Your task to perform on an android device: open app "AliExpress" (install if not already installed), go to login, and select forgot password Image 0: 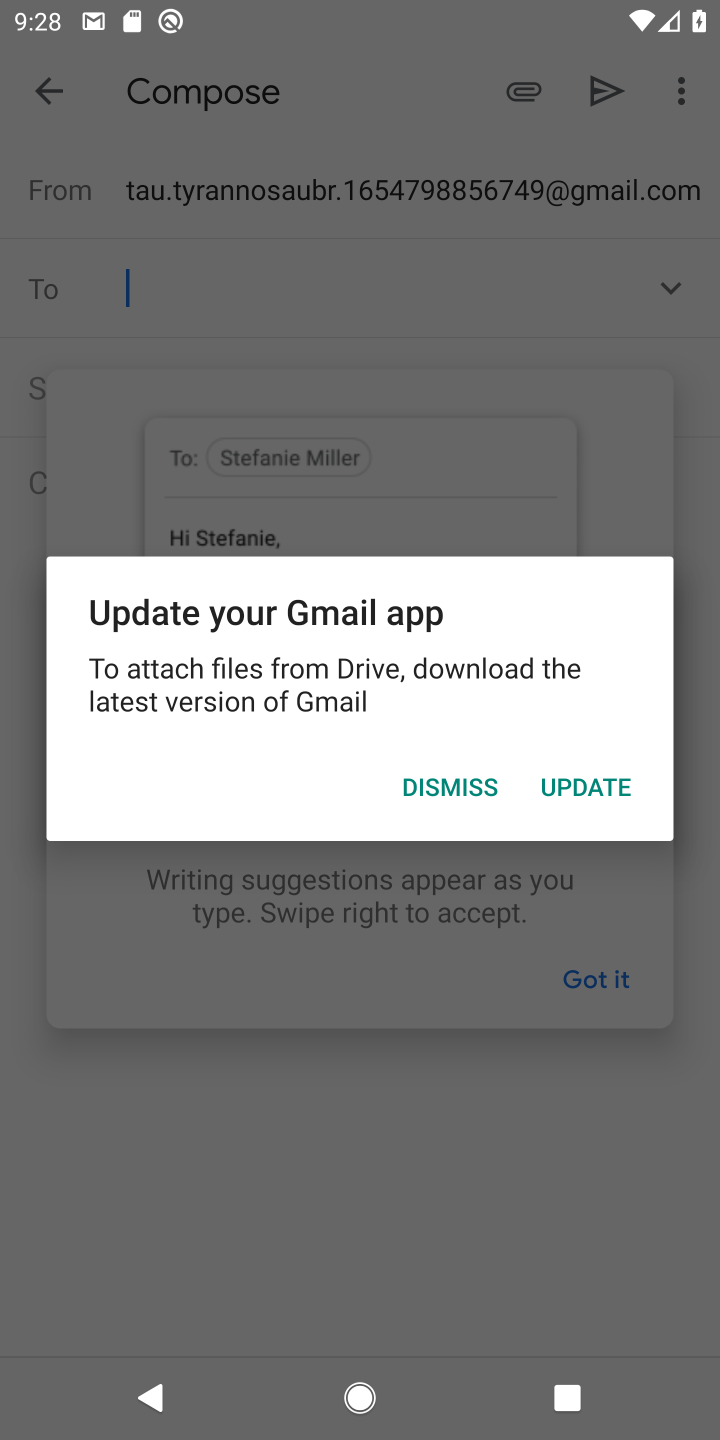
Step 0: press home button
Your task to perform on an android device: open app "AliExpress" (install if not already installed), go to login, and select forgot password Image 1: 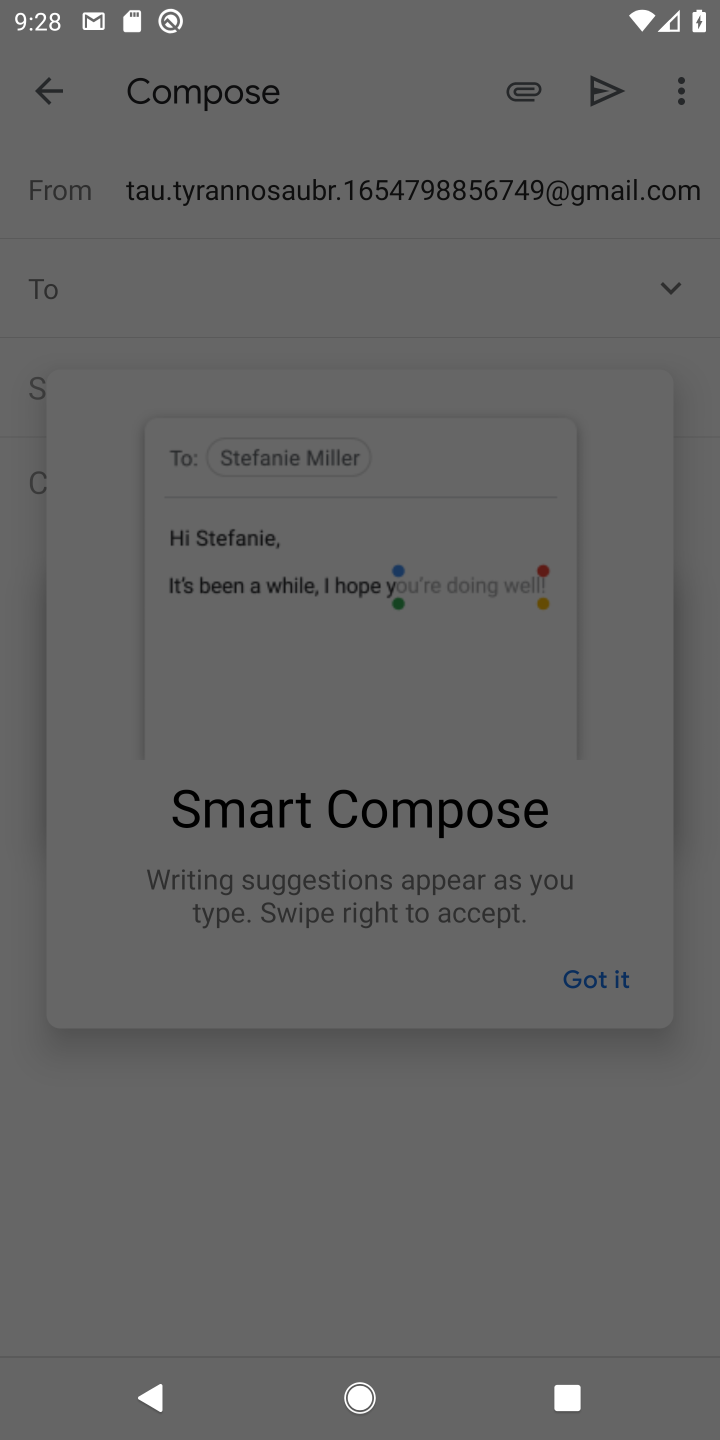
Step 1: press home button
Your task to perform on an android device: open app "AliExpress" (install if not already installed), go to login, and select forgot password Image 2: 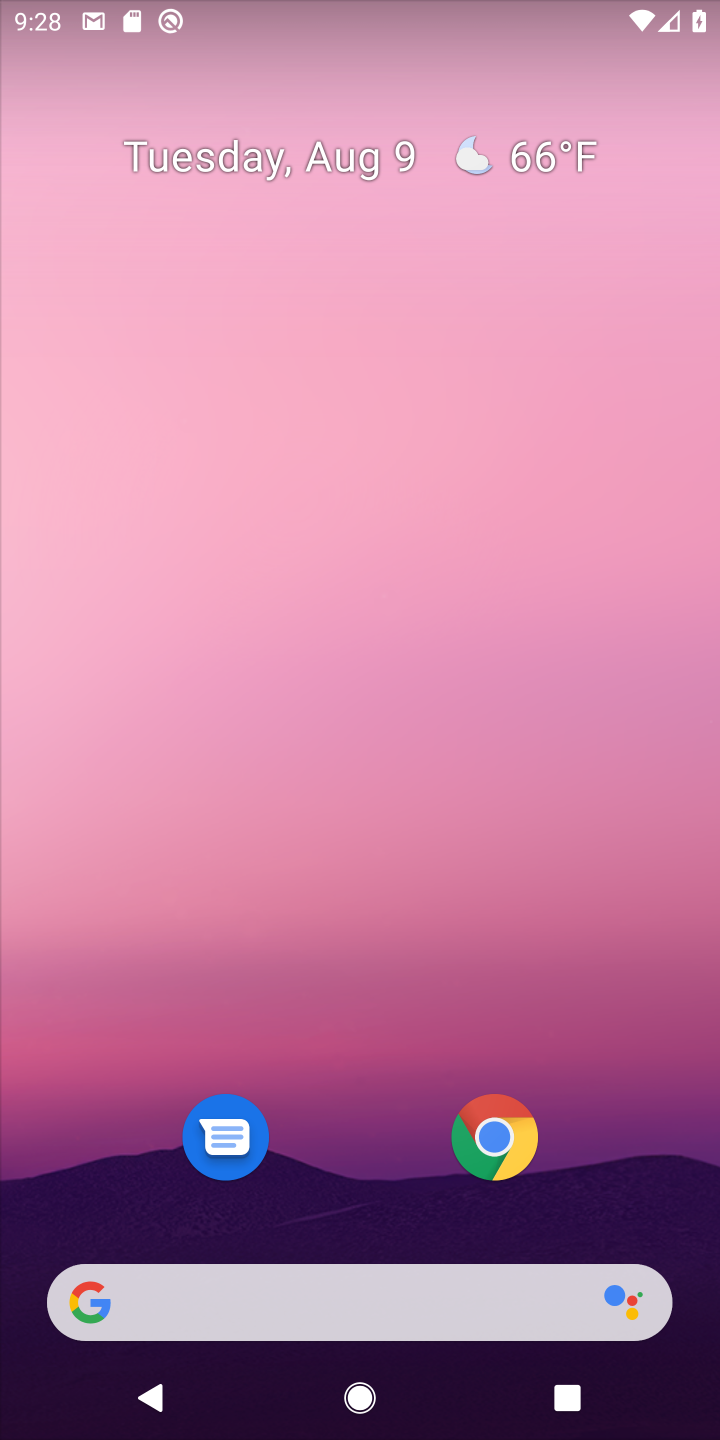
Step 2: drag from (351, 812) to (364, 153)
Your task to perform on an android device: open app "AliExpress" (install if not already installed), go to login, and select forgot password Image 3: 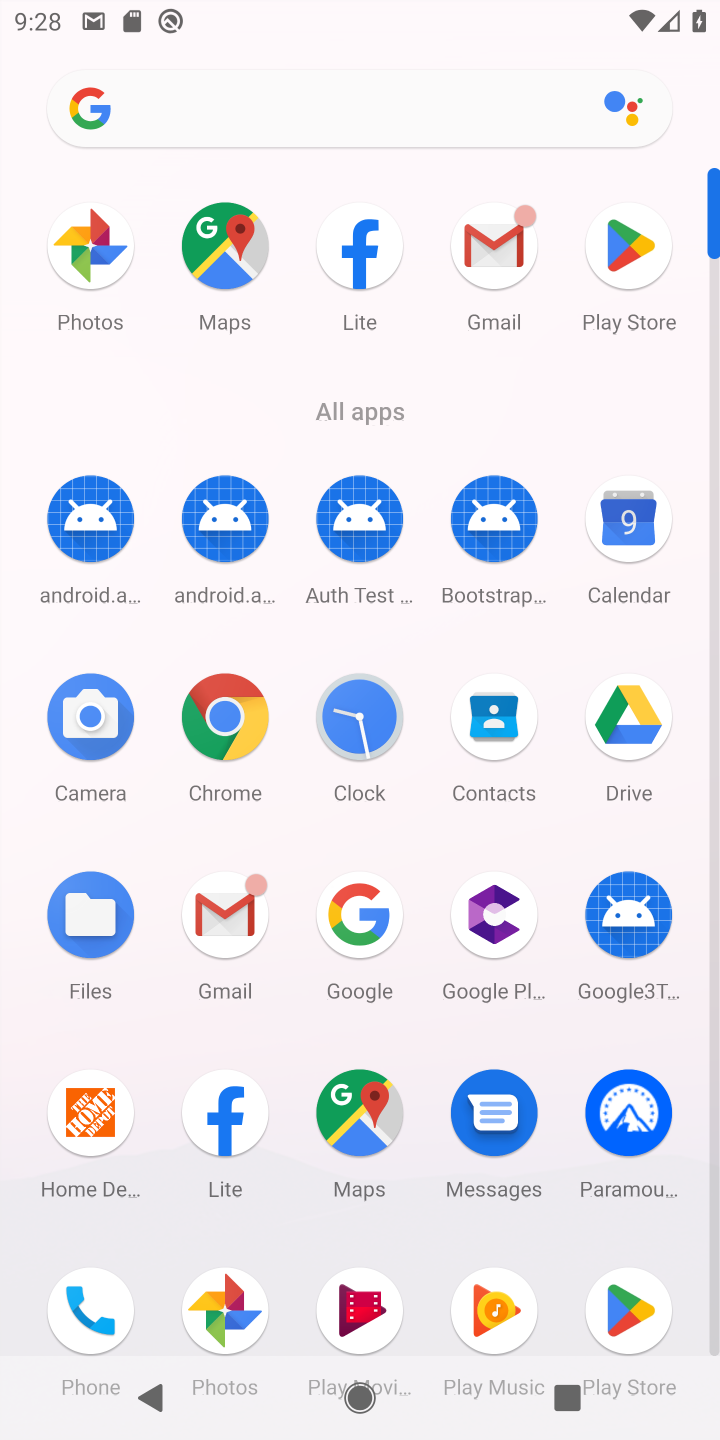
Step 3: click (614, 253)
Your task to perform on an android device: open app "AliExpress" (install if not already installed), go to login, and select forgot password Image 4: 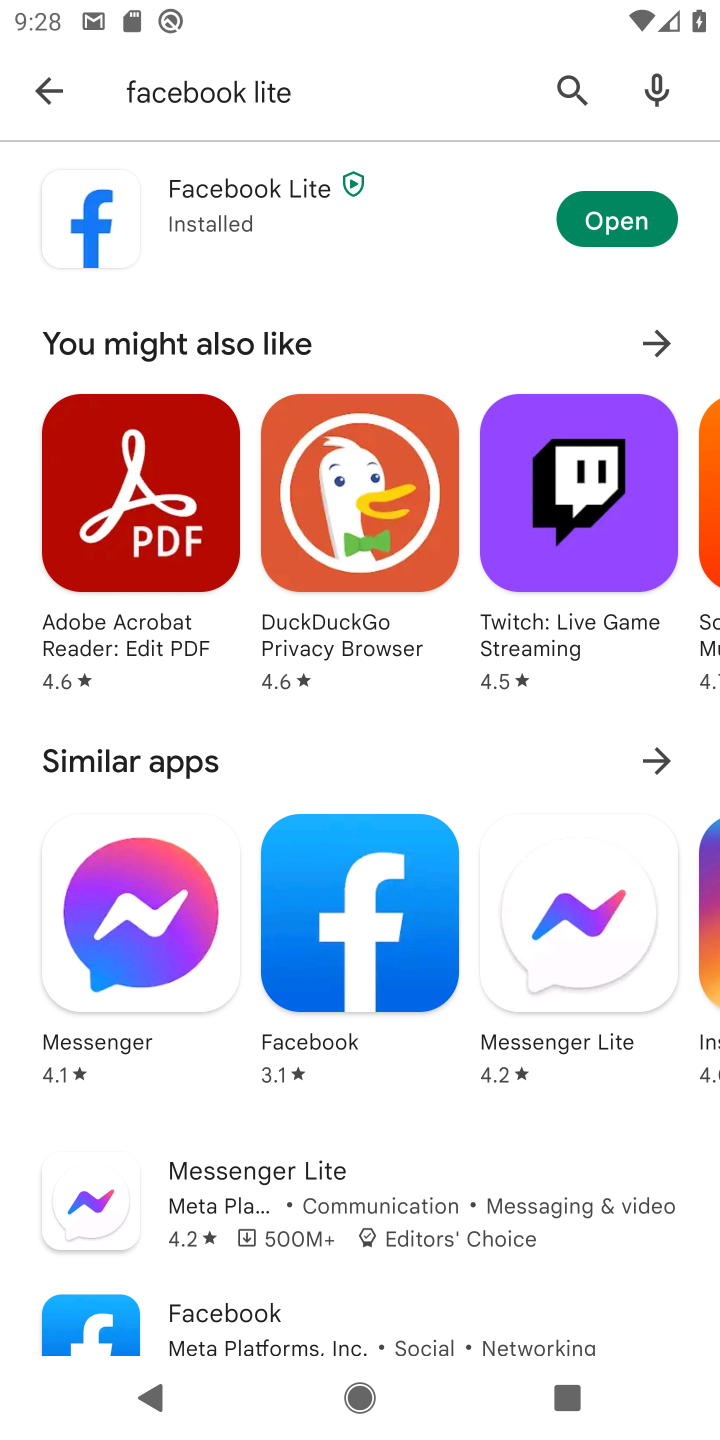
Step 4: click (562, 95)
Your task to perform on an android device: open app "AliExpress" (install if not already installed), go to login, and select forgot password Image 5: 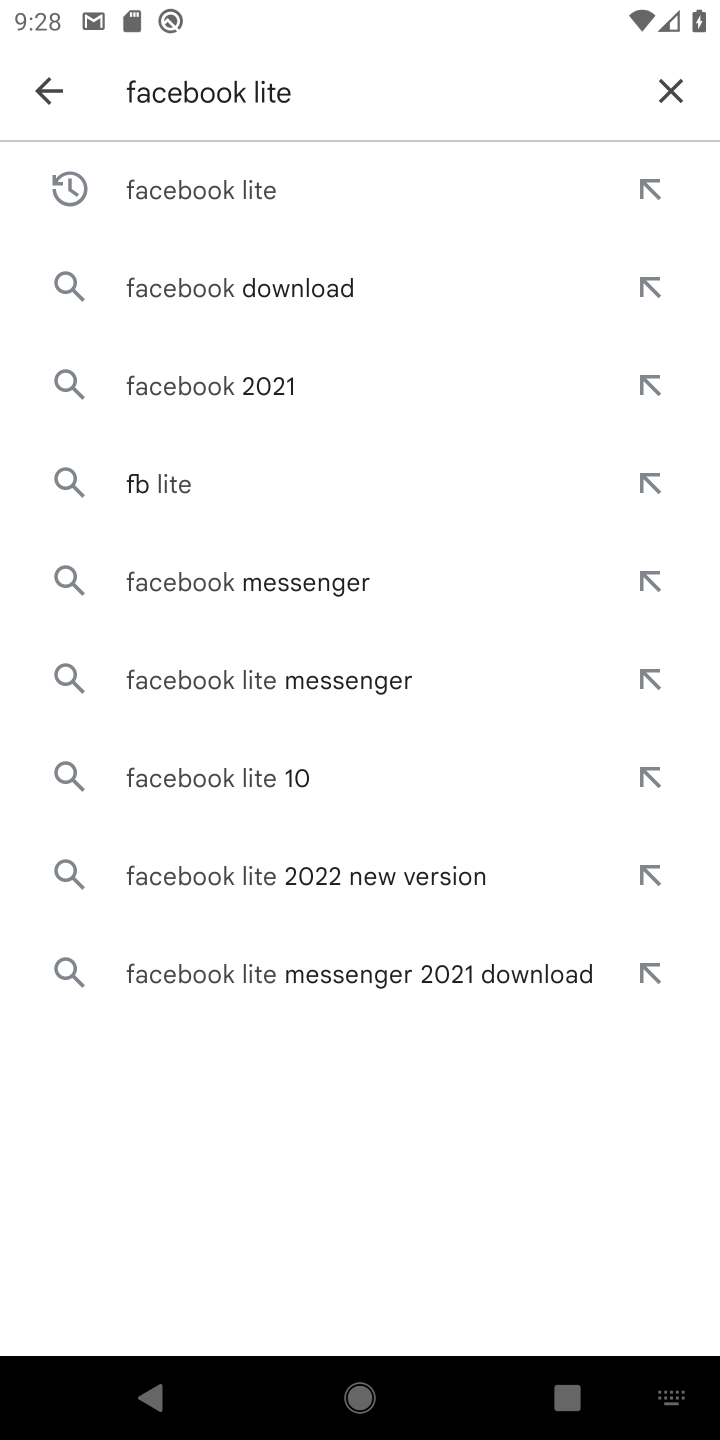
Step 5: click (668, 82)
Your task to perform on an android device: open app "AliExpress" (install if not already installed), go to login, and select forgot password Image 6: 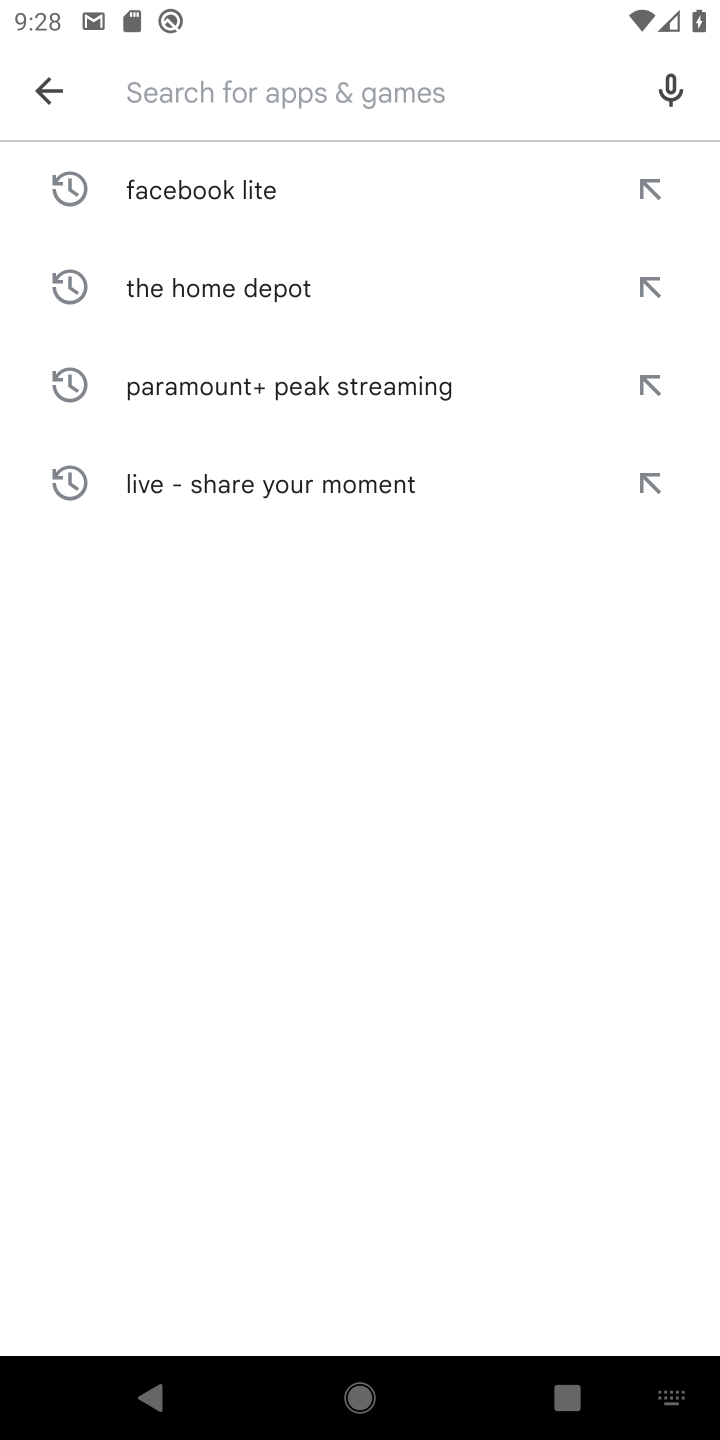
Step 6: type "AliExpress"
Your task to perform on an android device: open app "AliExpress" (install if not already installed), go to login, and select forgot password Image 7: 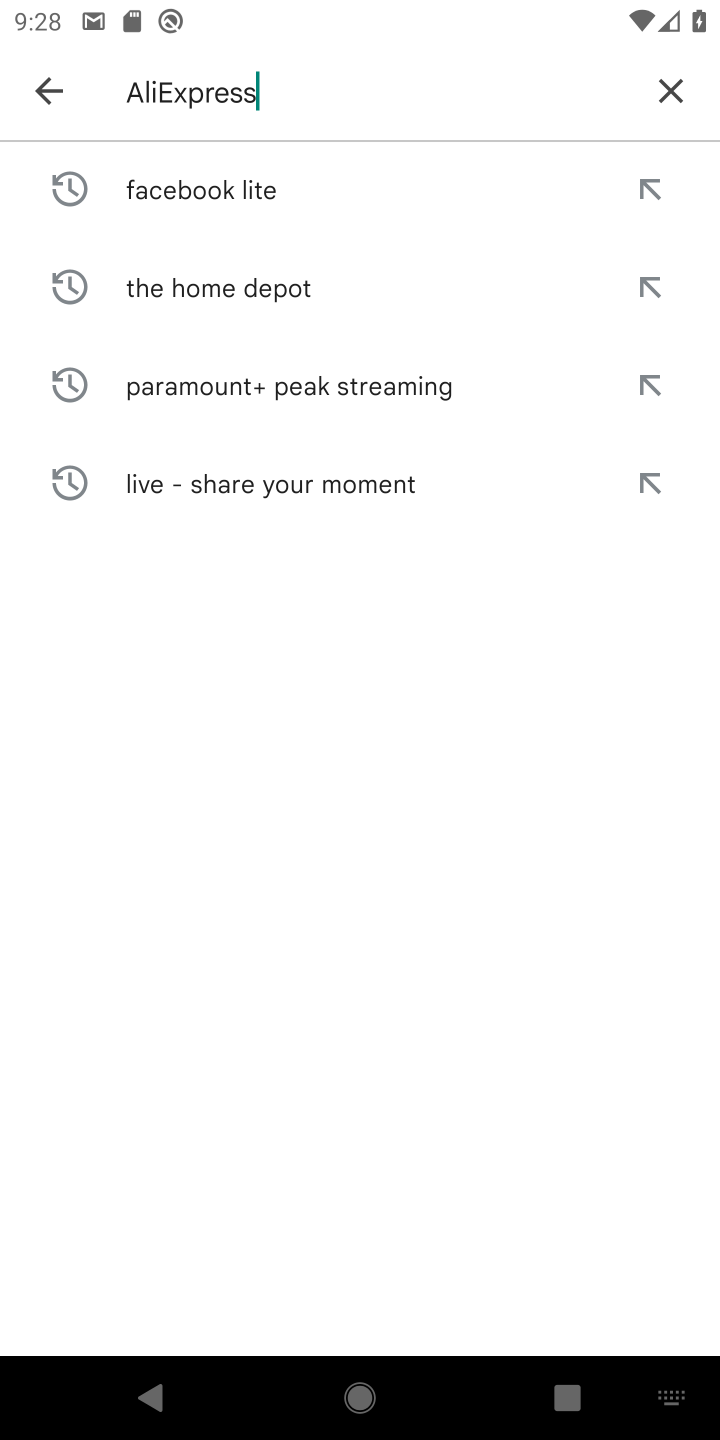
Step 7: type ""
Your task to perform on an android device: open app "AliExpress" (install if not already installed), go to login, and select forgot password Image 8: 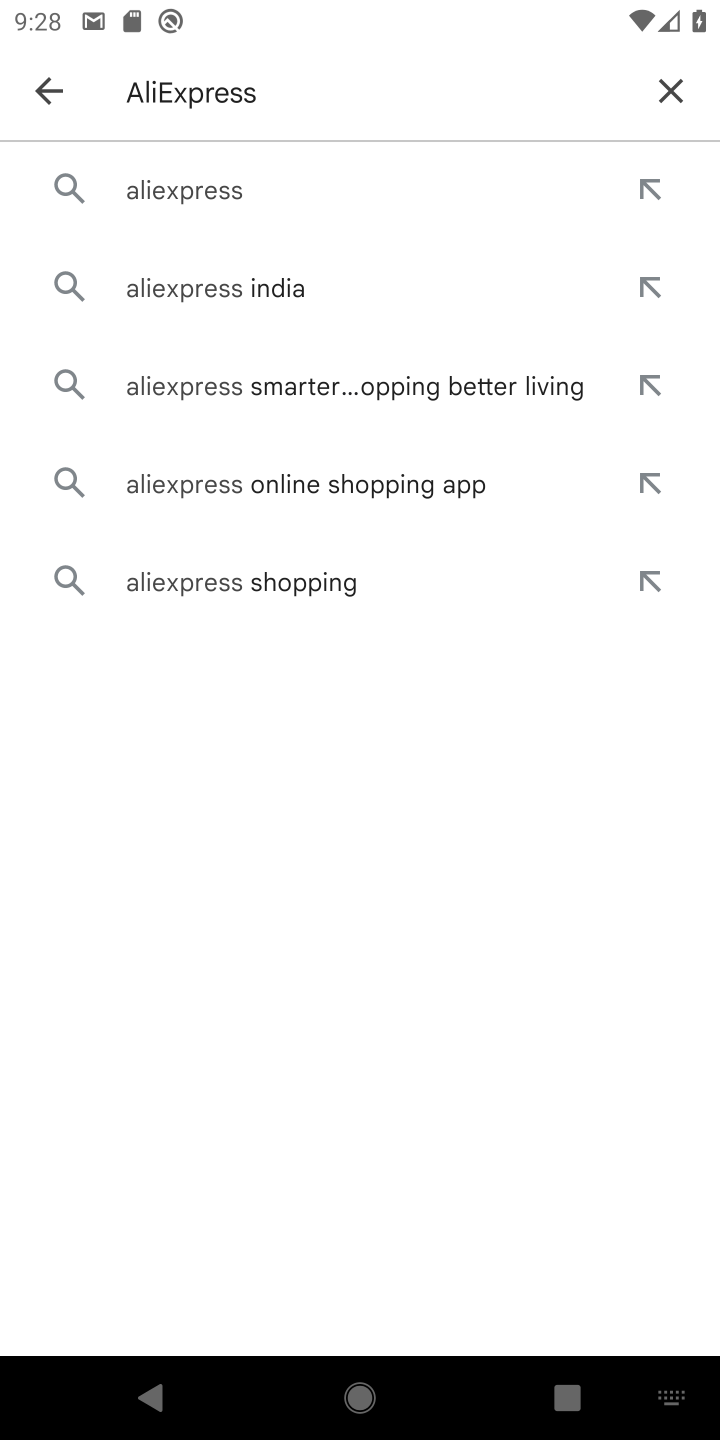
Step 8: click (239, 170)
Your task to perform on an android device: open app "AliExpress" (install if not already installed), go to login, and select forgot password Image 9: 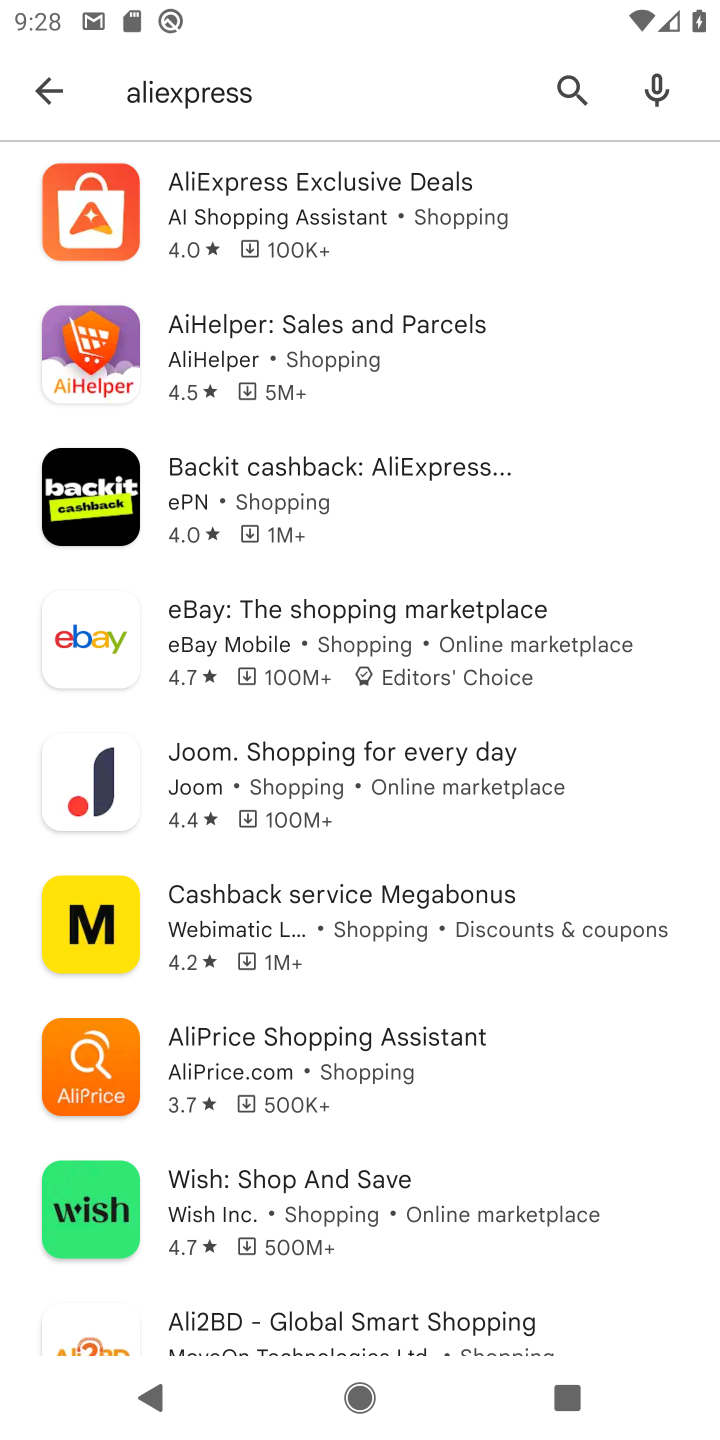
Step 9: click (252, 181)
Your task to perform on an android device: open app "AliExpress" (install if not already installed), go to login, and select forgot password Image 10: 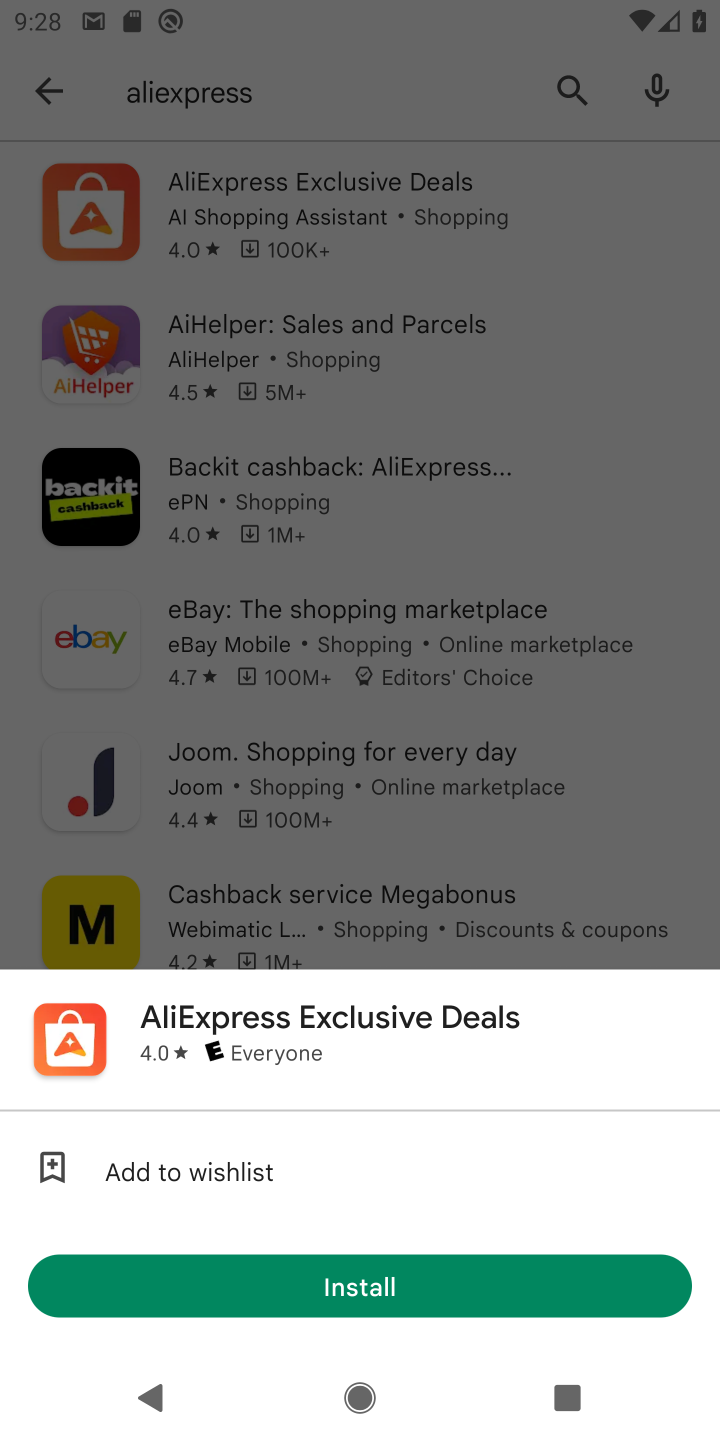
Step 10: click (311, 1278)
Your task to perform on an android device: open app "AliExpress" (install if not already installed), go to login, and select forgot password Image 11: 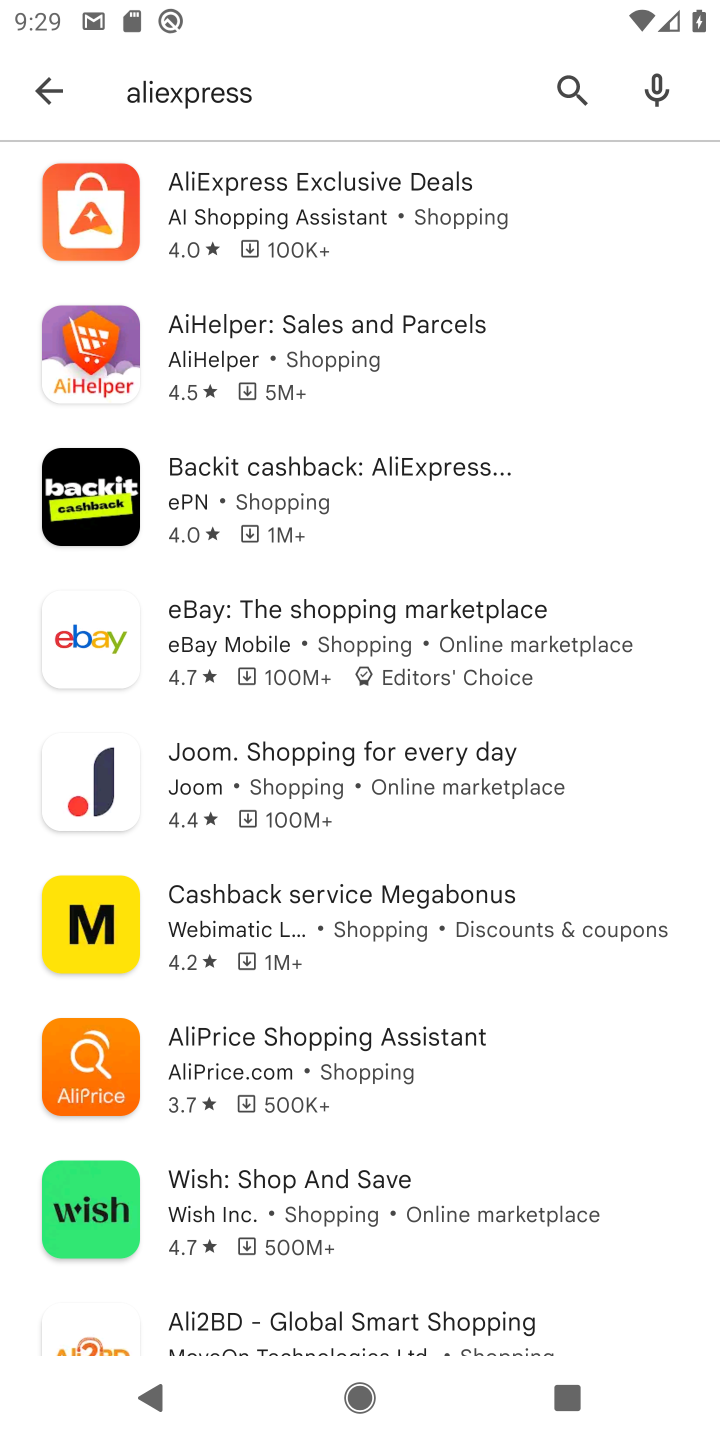
Step 11: click (277, 206)
Your task to perform on an android device: open app "AliExpress" (install if not already installed), go to login, and select forgot password Image 12: 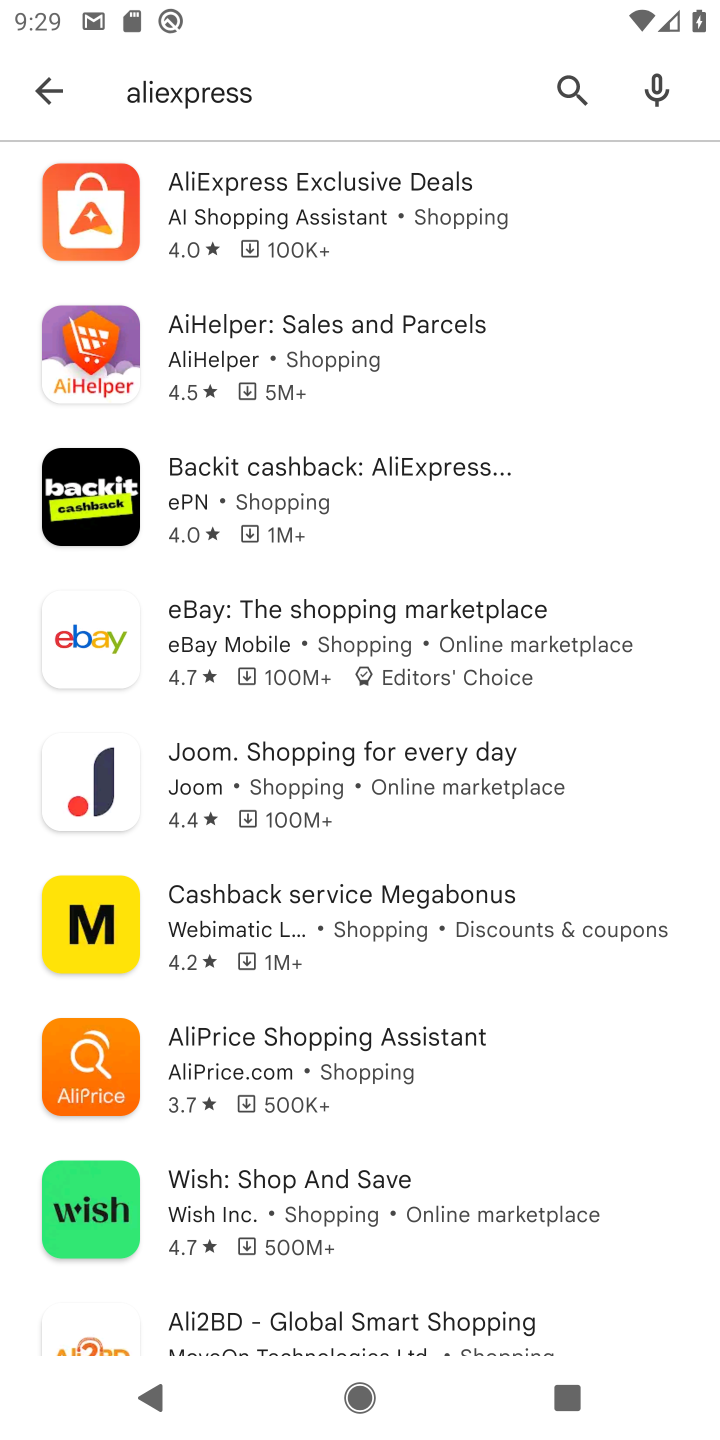
Step 12: click (293, 182)
Your task to perform on an android device: open app "AliExpress" (install if not already installed), go to login, and select forgot password Image 13: 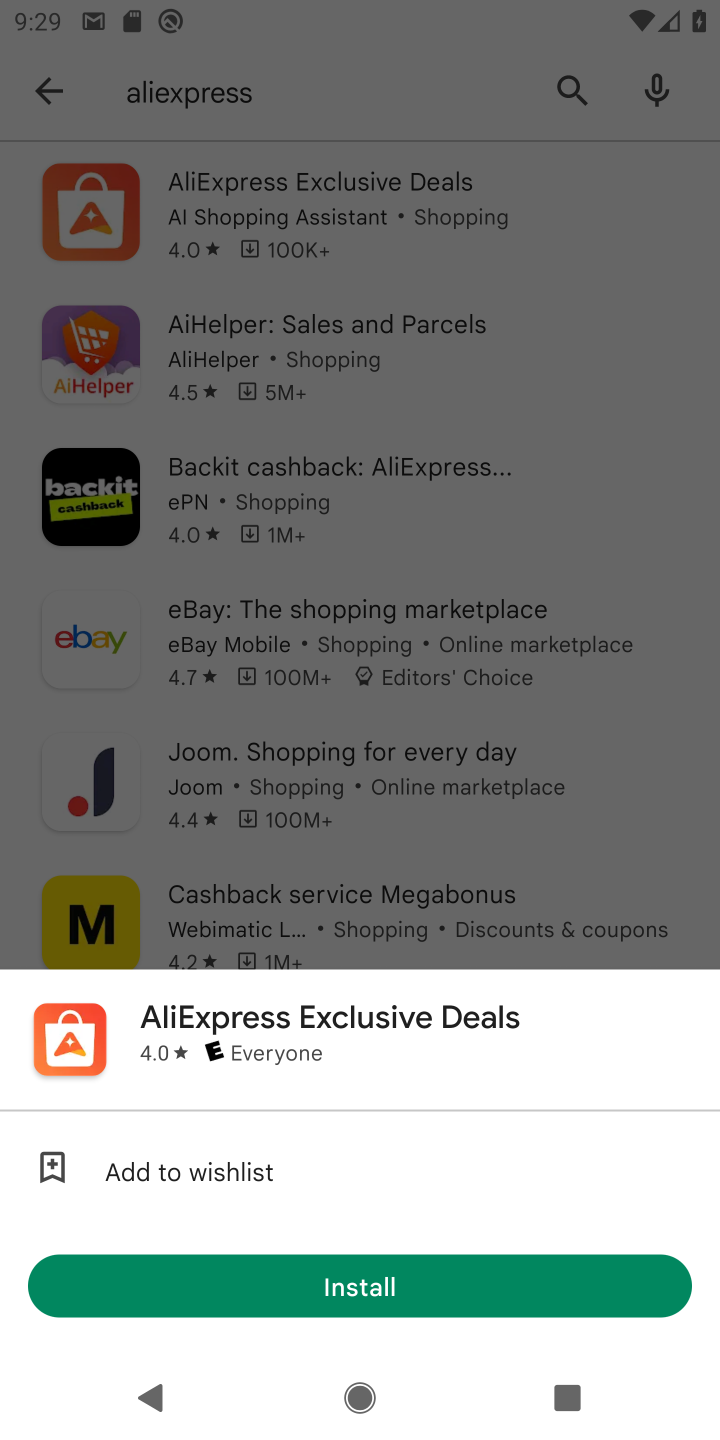
Step 13: click (312, 1288)
Your task to perform on an android device: open app "AliExpress" (install if not already installed), go to login, and select forgot password Image 14: 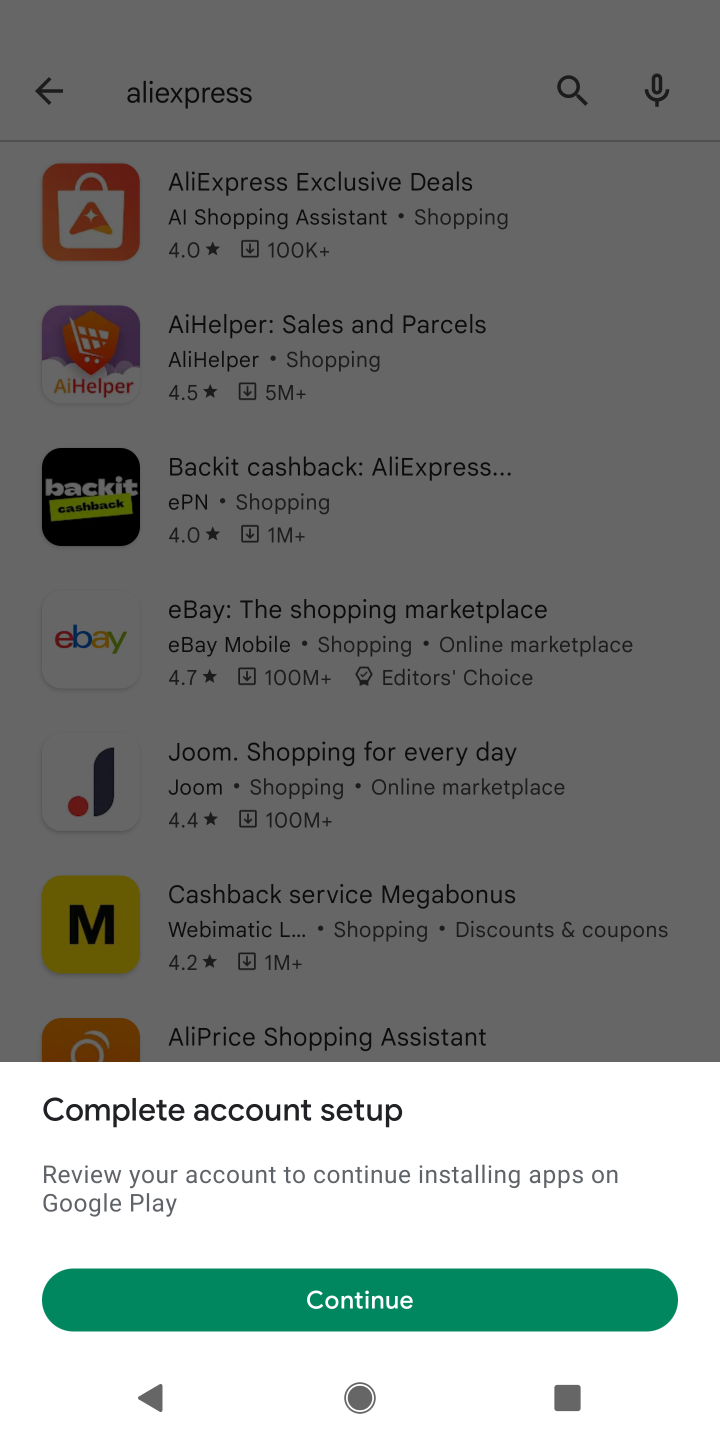
Step 14: click (338, 1305)
Your task to perform on an android device: open app "AliExpress" (install if not already installed), go to login, and select forgot password Image 15: 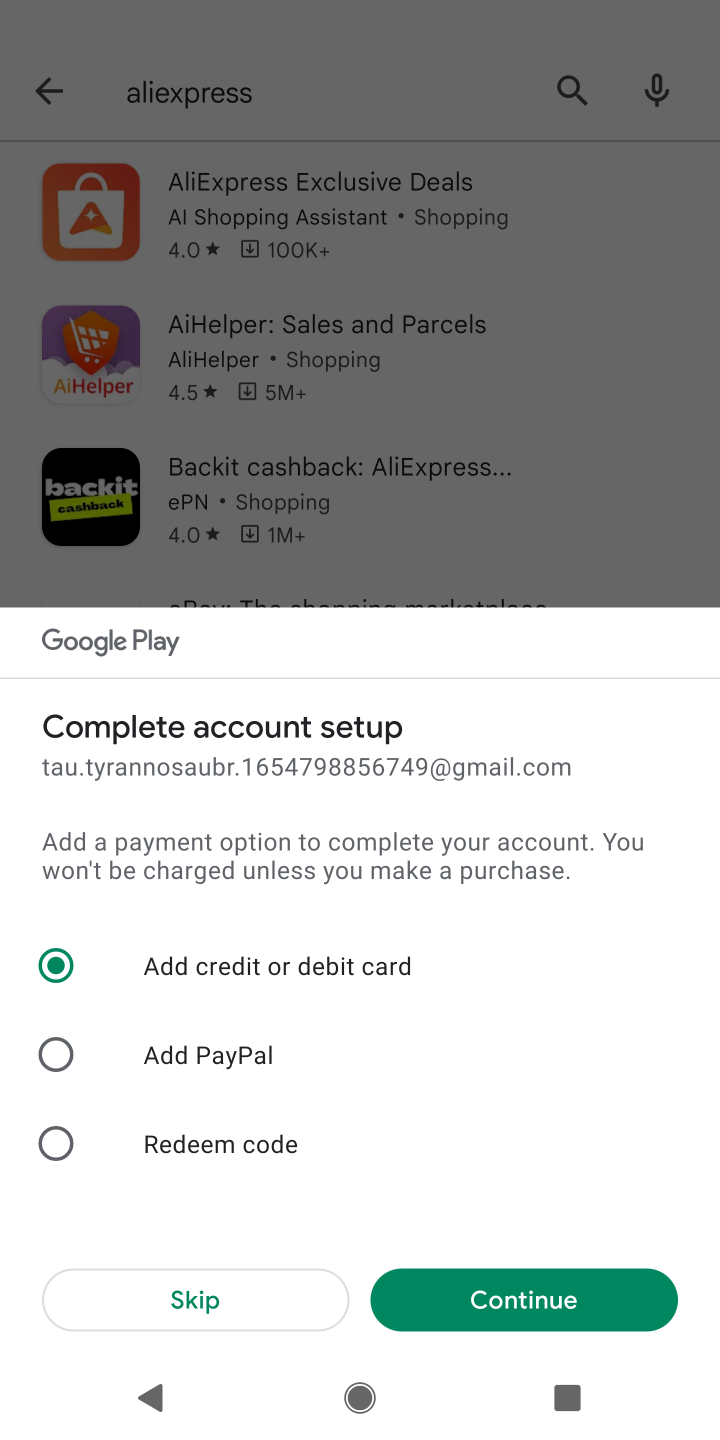
Step 15: click (241, 1305)
Your task to perform on an android device: open app "AliExpress" (install if not already installed), go to login, and select forgot password Image 16: 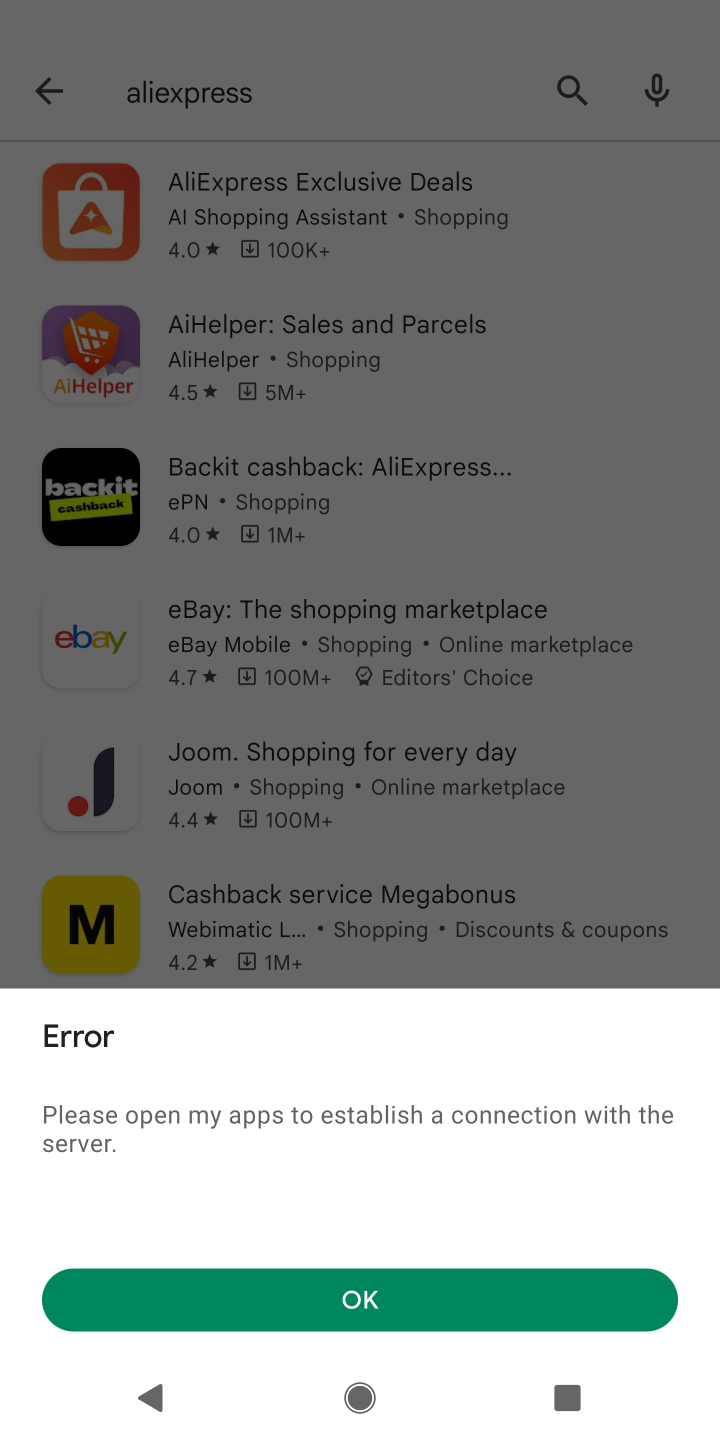
Step 16: click (328, 1307)
Your task to perform on an android device: open app "AliExpress" (install if not already installed), go to login, and select forgot password Image 17: 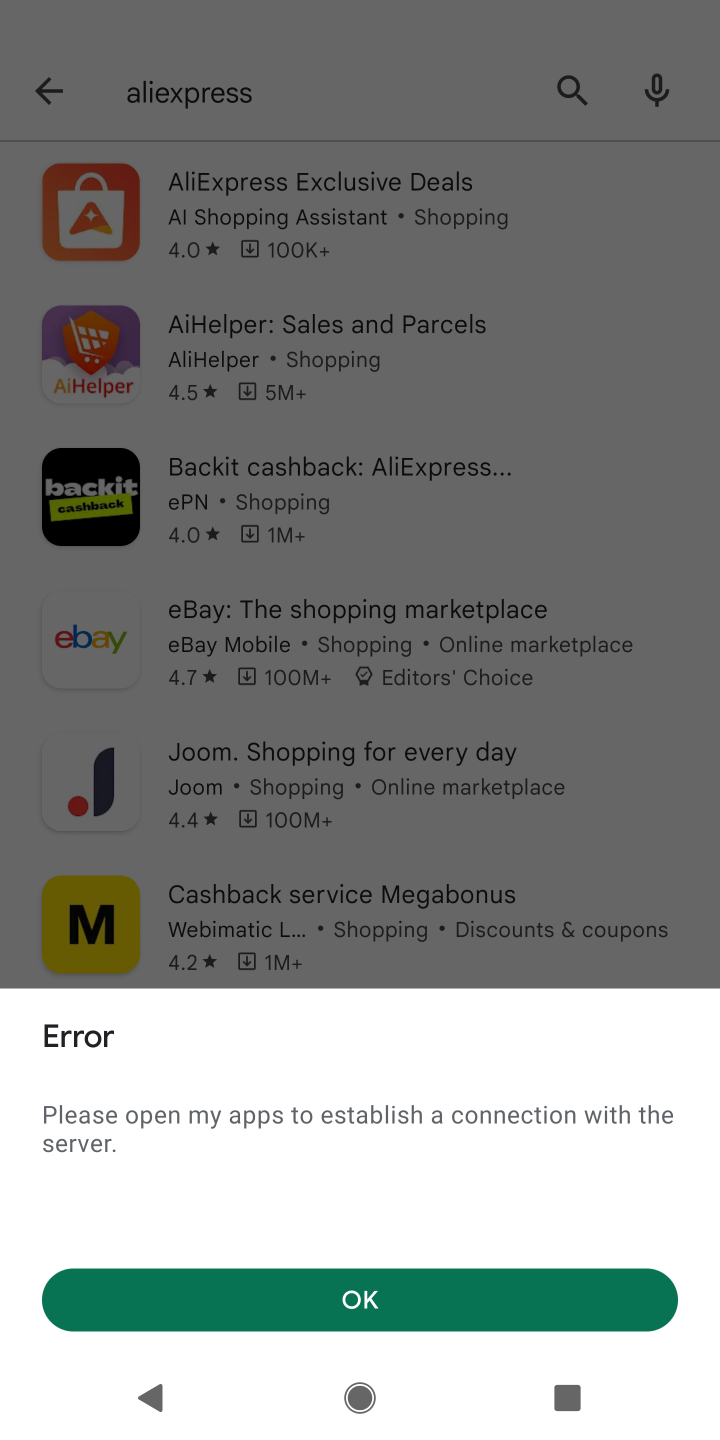
Step 17: task complete